Your task to perform on an android device: open wifi settings Image 0: 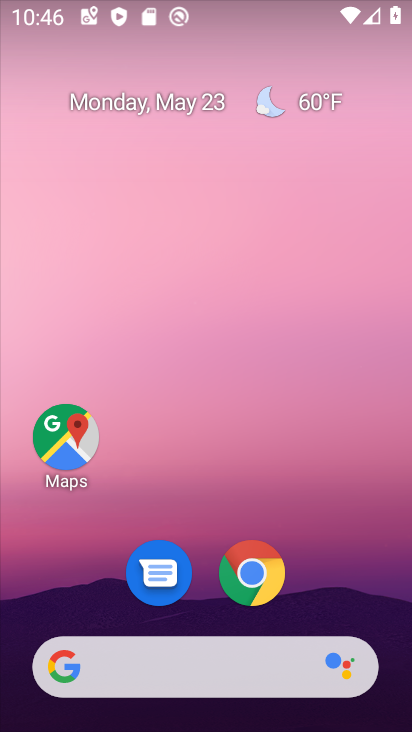
Step 0: drag from (326, 568) to (259, 35)
Your task to perform on an android device: open wifi settings Image 1: 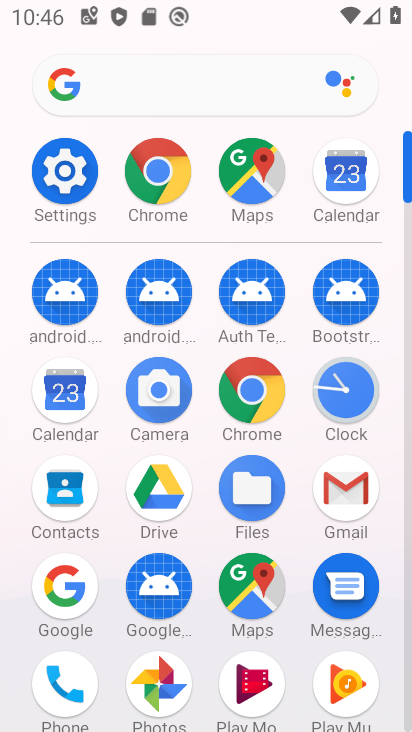
Step 1: click (63, 171)
Your task to perform on an android device: open wifi settings Image 2: 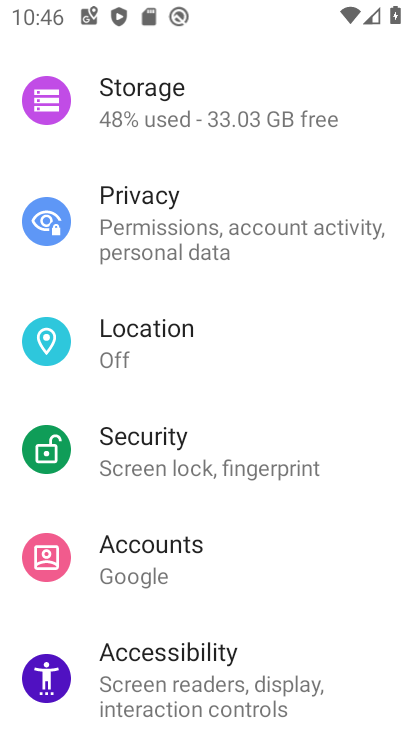
Step 2: drag from (301, 593) to (301, 100)
Your task to perform on an android device: open wifi settings Image 3: 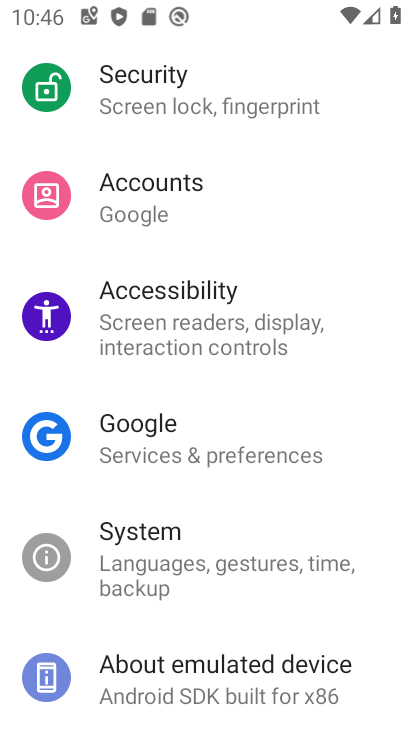
Step 3: drag from (302, 186) to (299, 584)
Your task to perform on an android device: open wifi settings Image 4: 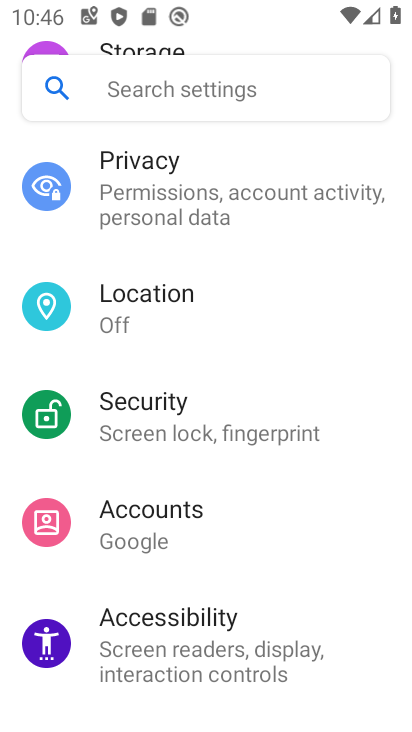
Step 4: drag from (252, 182) to (252, 606)
Your task to perform on an android device: open wifi settings Image 5: 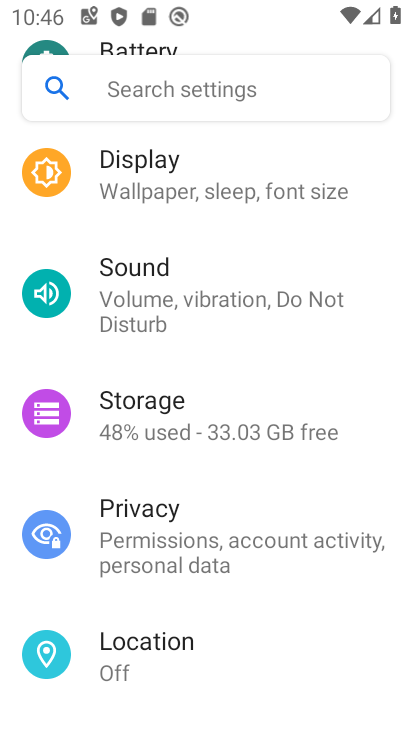
Step 5: drag from (307, 218) to (308, 535)
Your task to perform on an android device: open wifi settings Image 6: 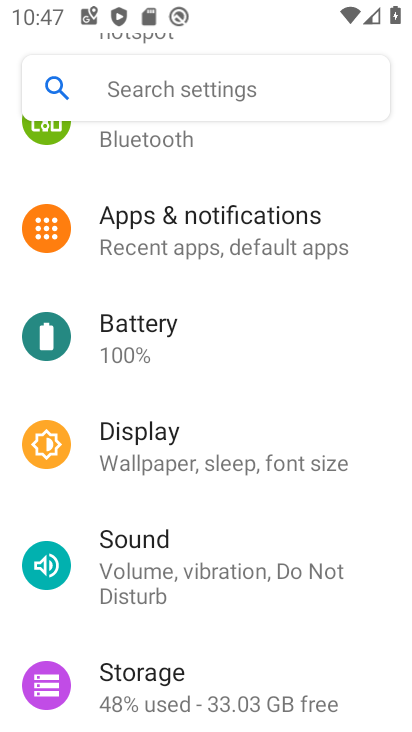
Step 6: drag from (270, 216) to (273, 611)
Your task to perform on an android device: open wifi settings Image 7: 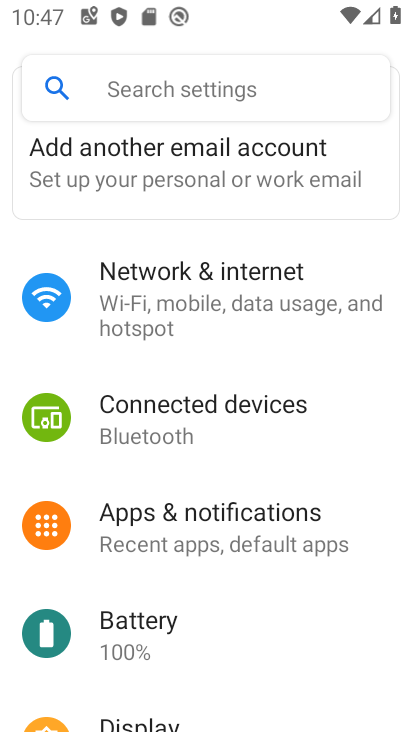
Step 7: click (263, 283)
Your task to perform on an android device: open wifi settings Image 8: 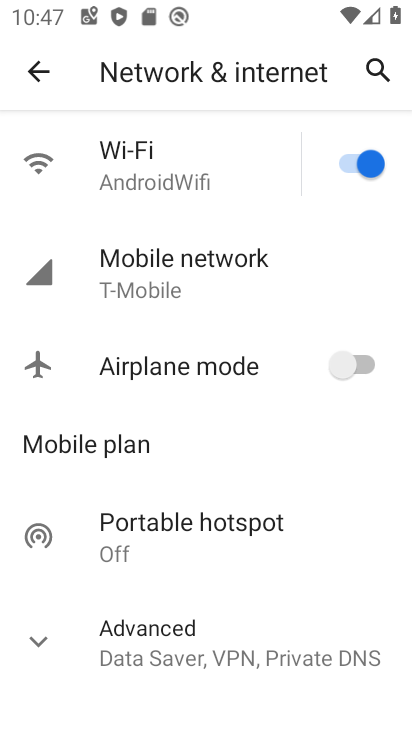
Step 8: click (163, 139)
Your task to perform on an android device: open wifi settings Image 9: 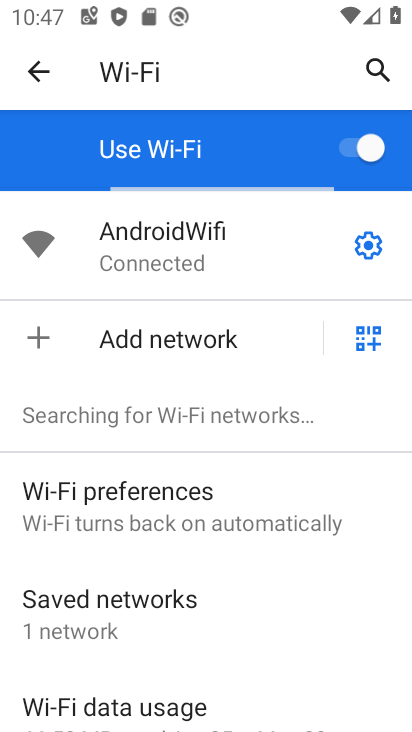
Step 9: task complete